Your task to perform on an android device: What is the recent news? Image 0: 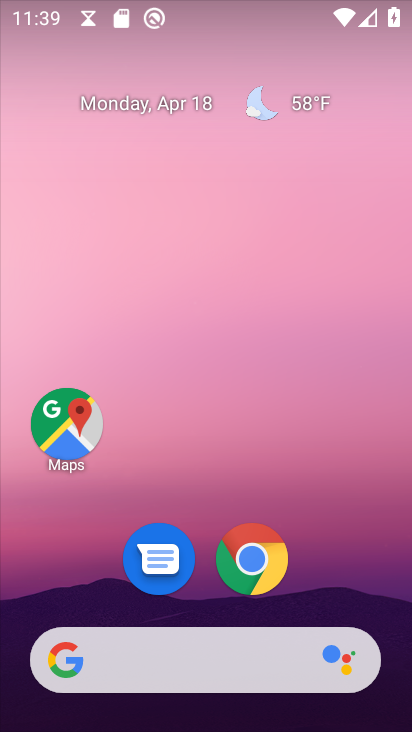
Step 0: press home button
Your task to perform on an android device: What is the recent news? Image 1: 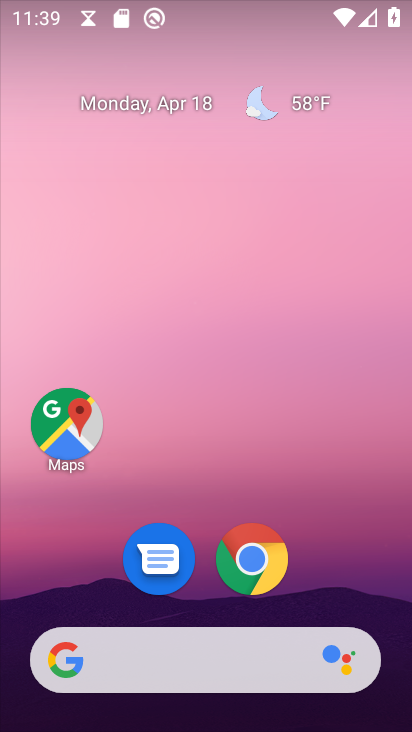
Step 1: click (265, 559)
Your task to perform on an android device: What is the recent news? Image 2: 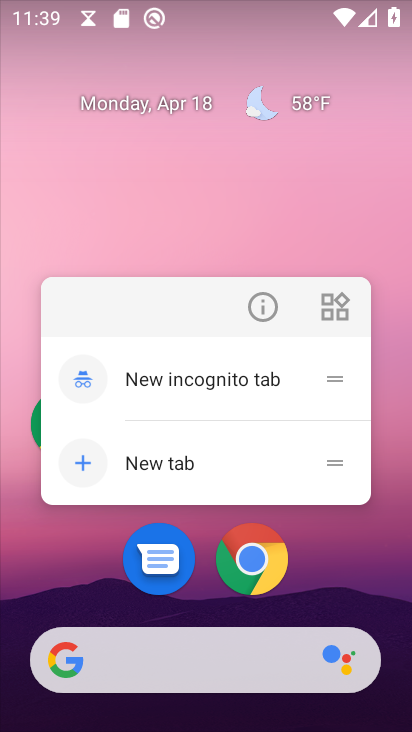
Step 2: click (250, 551)
Your task to perform on an android device: What is the recent news? Image 3: 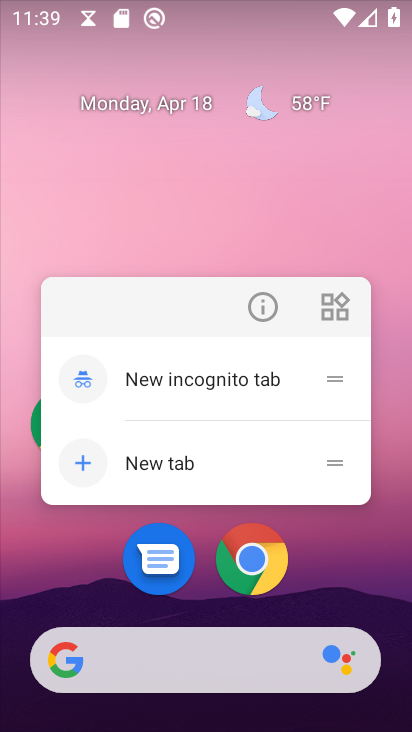
Step 3: click (250, 551)
Your task to perform on an android device: What is the recent news? Image 4: 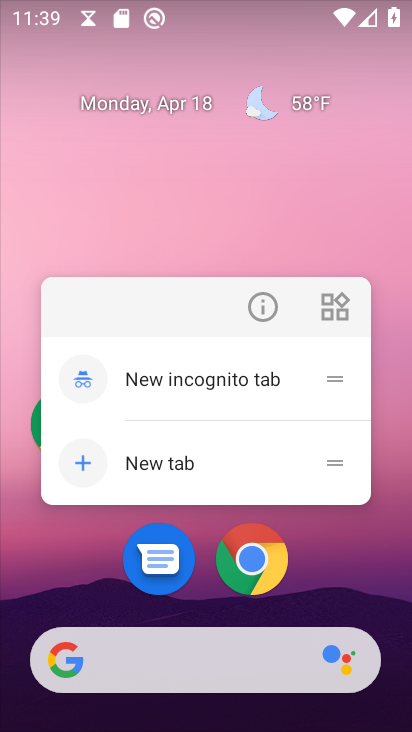
Step 4: click (250, 552)
Your task to perform on an android device: What is the recent news? Image 5: 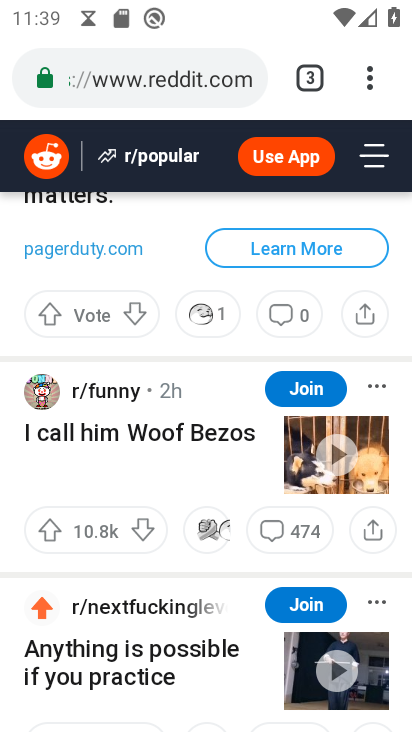
Step 5: click (298, 71)
Your task to perform on an android device: What is the recent news? Image 6: 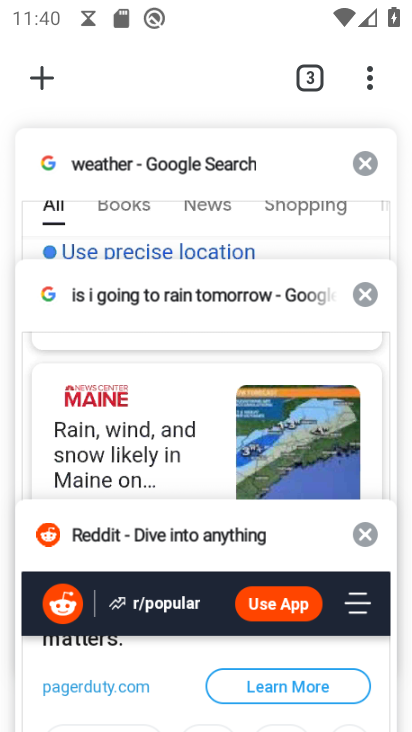
Step 6: click (44, 82)
Your task to perform on an android device: What is the recent news? Image 7: 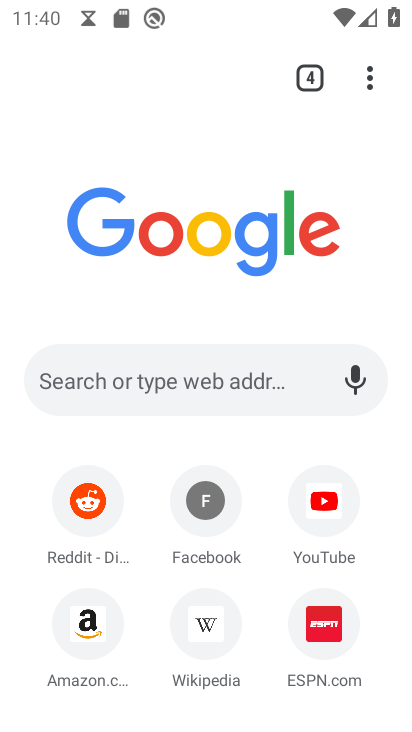
Step 7: click (120, 361)
Your task to perform on an android device: What is the recent news? Image 8: 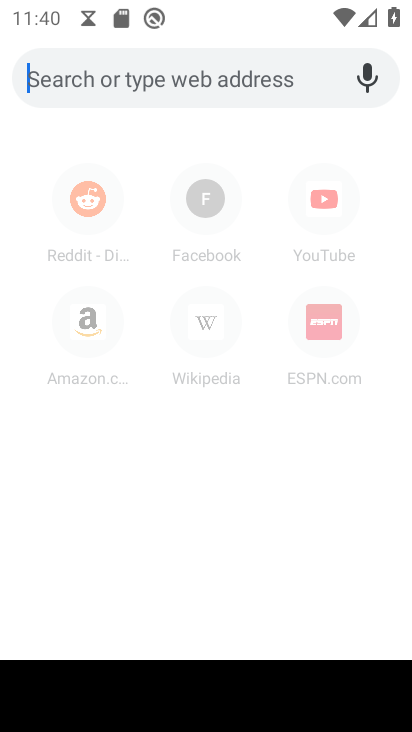
Step 8: type "recent news"
Your task to perform on an android device: What is the recent news? Image 9: 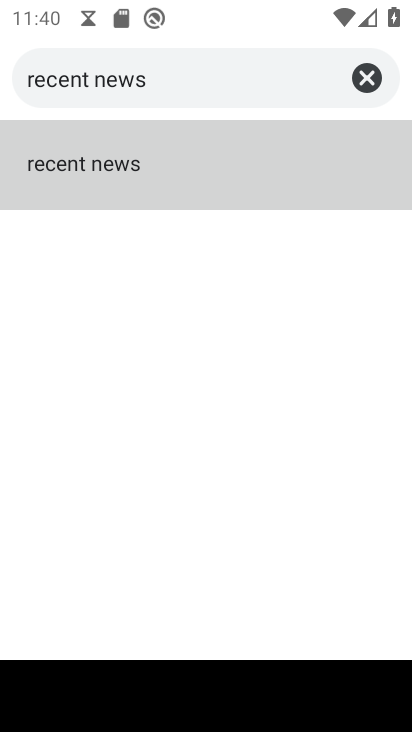
Step 9: click (60, 154)
Your task to perform on an android device: What is the recent news? Image 10: 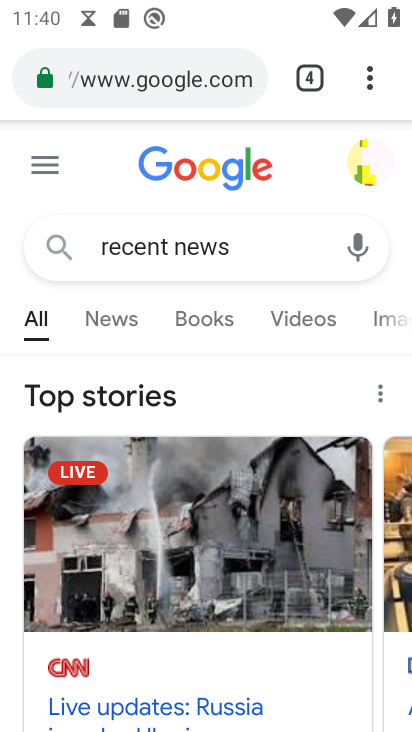
Step 10: task complete